Your task to perform on an android device: Go to network settings Image 0: 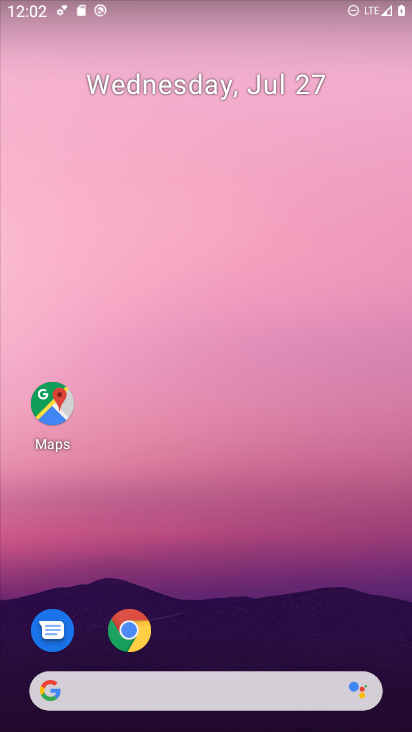
Step 0: drag from (370, 634) to (355, 121)
Your task to perform on an android device: Go to network settings Image 1: 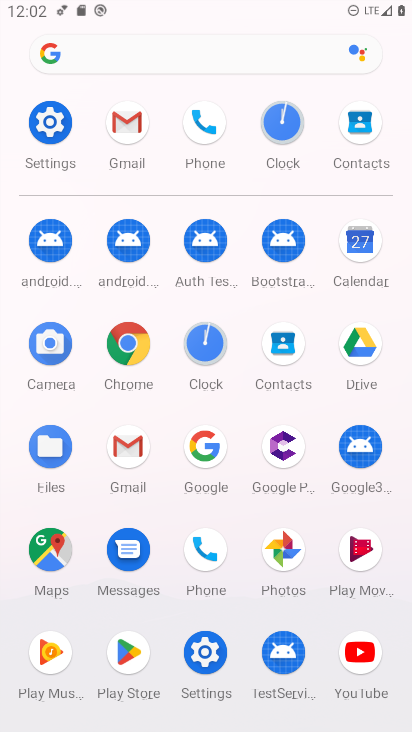
Step 1: click (207, 652)
Your task to perform on an android device: Go to network settings Image 2: 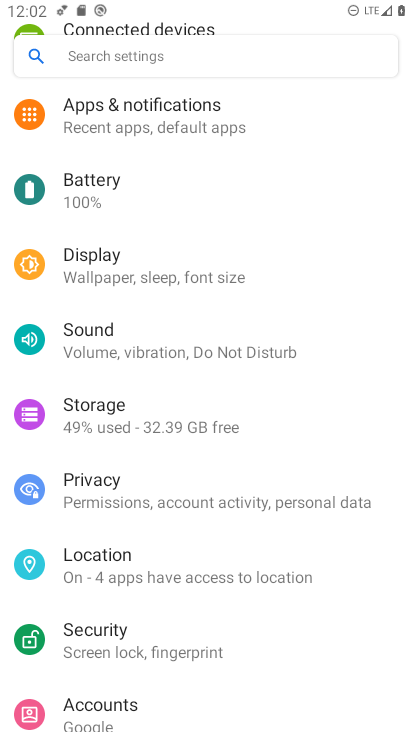
Step 2: drag from (278, 155) to (297, 453)
Your task to perform on an android device: Go to network settings Image 3: 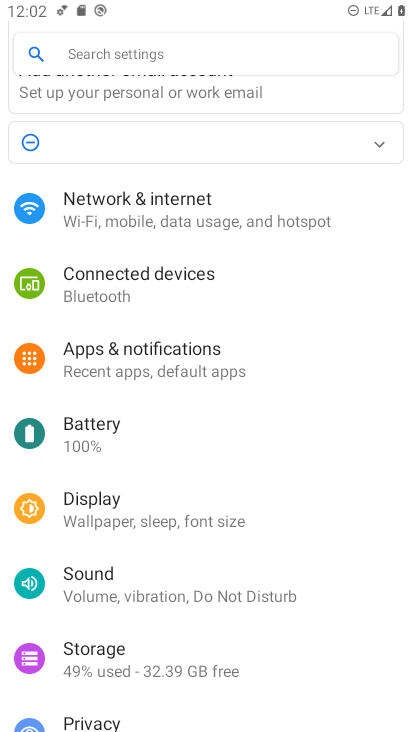
Step 3: click (115, 208)
Your task to perform on an android device: Go to network settings Image 4: 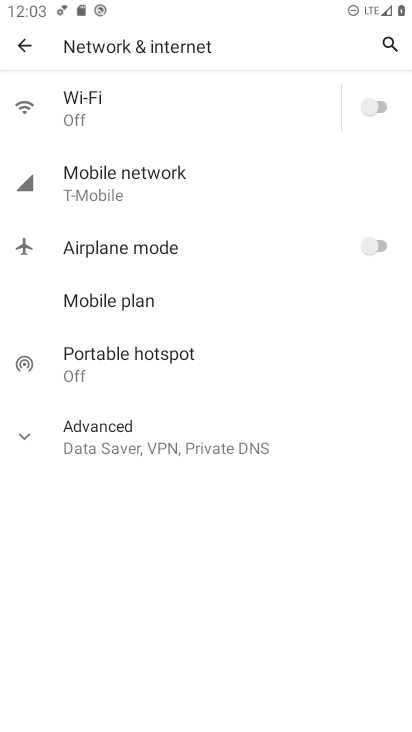
Step 4: click (28, 444)
Your task to perform on an android device: Go to network settings Image 5: 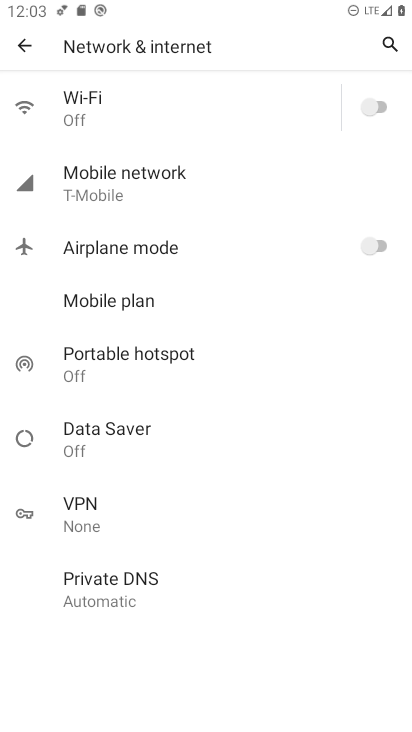
Step 5: click (116, 179)
Your task to perform on an android device: Go to network settings Image 6: 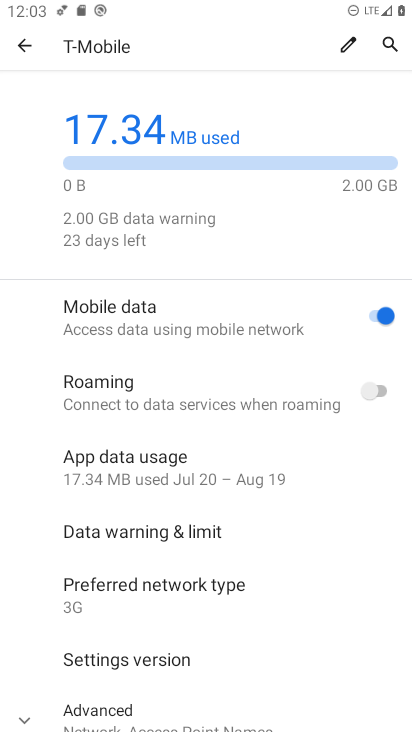
Step 6: drag from (282, 657) to (292, 375)
Your task to perform on an android device: Go to network settings Image 7: 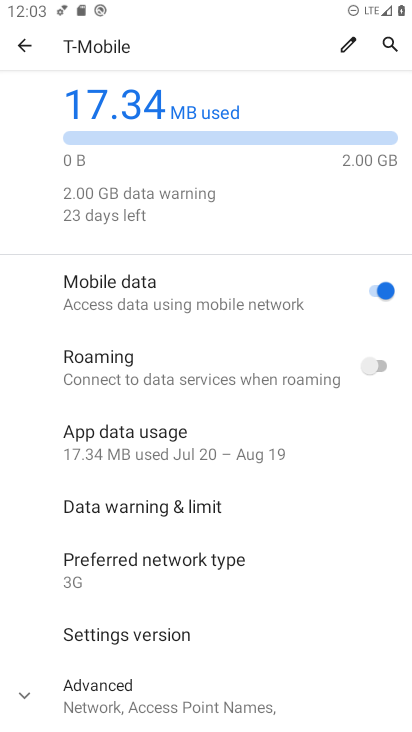
Step 7: click (19, 692)
Your task to perform on an android device: Go to network settings Image 8: 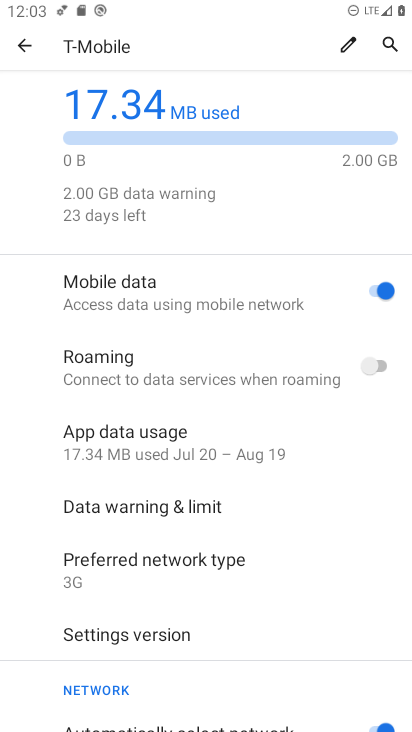
Step 8: task complete